Your task to perform on an android device: Do I have any events tomorrow? Image 0: 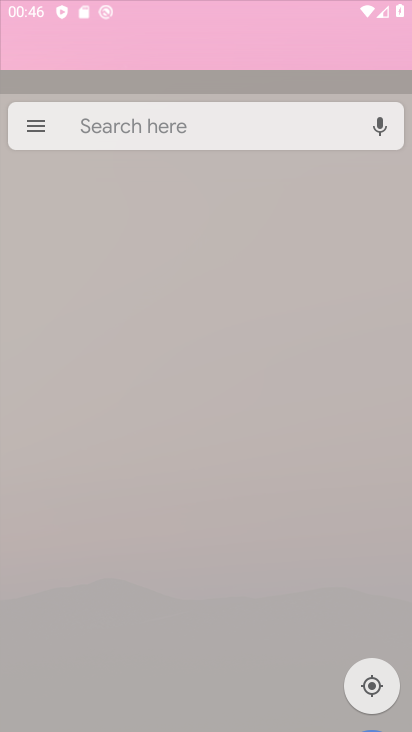
Step 0: click (266, 146)
Your task to perform on an android device: Do I have any events tomorrow? Image 1: 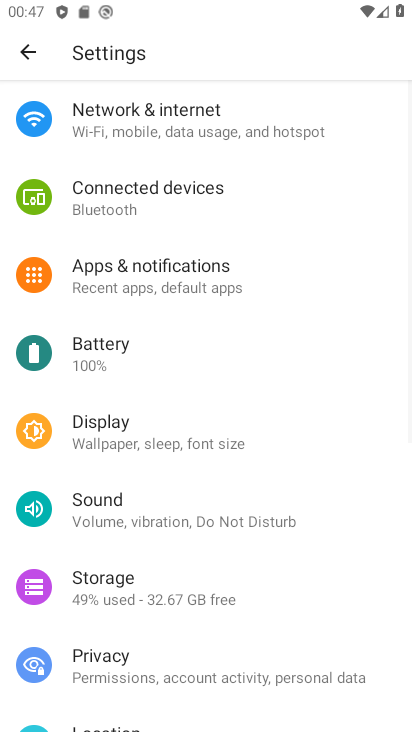
Step 1: press home button
Your task to perform on an android device: Do I have any events tomorrow? Image 2: 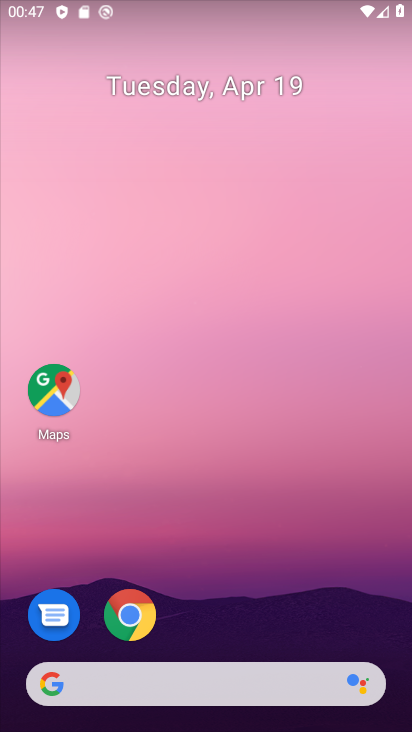
Step 2: drag from (260, 470) to (274, 161)
Your task to perform on an android device: Do I have any events tomorrow? Image 3: 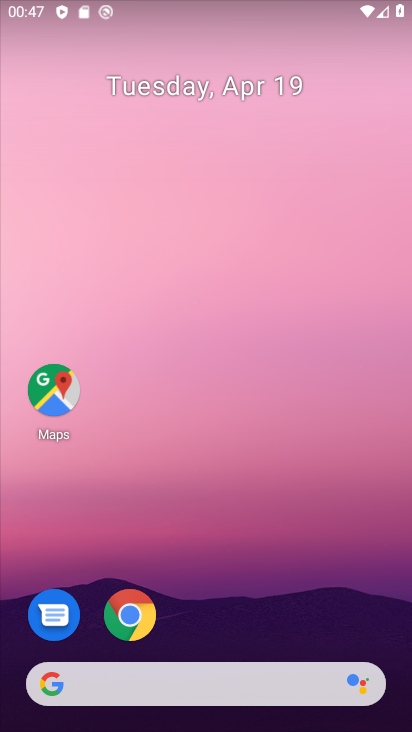
Step 3: drag from (261, 514) to (259, 116)
Your task to perform on an android device: Do I have any events tomorrow? Image 4: 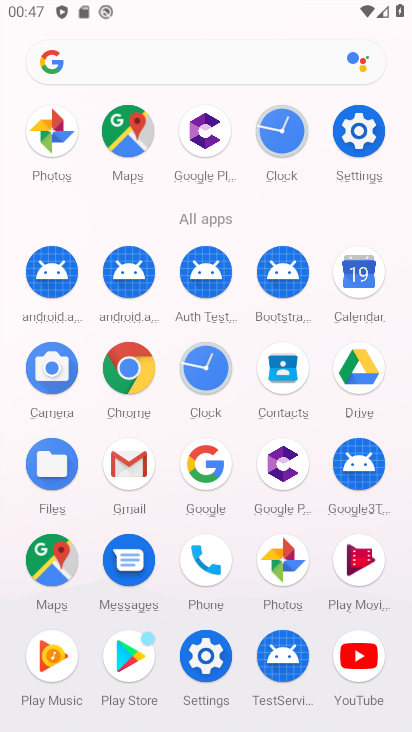
Step 4: click (373, 283)
Your task to perform on an android device: Do I have any events tomorrow? Image 5: 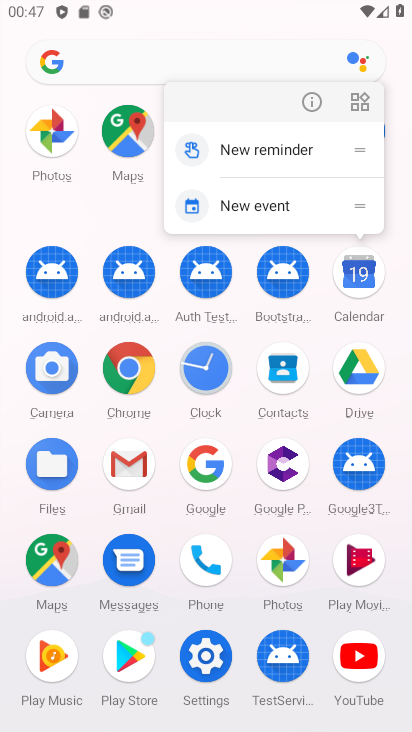
Step 5: click (370, 280)
Your task to perform on an android device: Do I have any events tomorrow? Image 6: 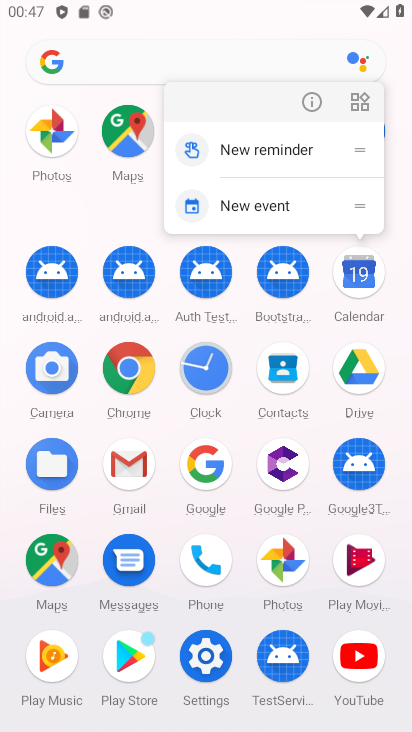
Step 6: click (369, 279)
Your task to perform on an android device: Do I have any events tomorrow? Image 7: 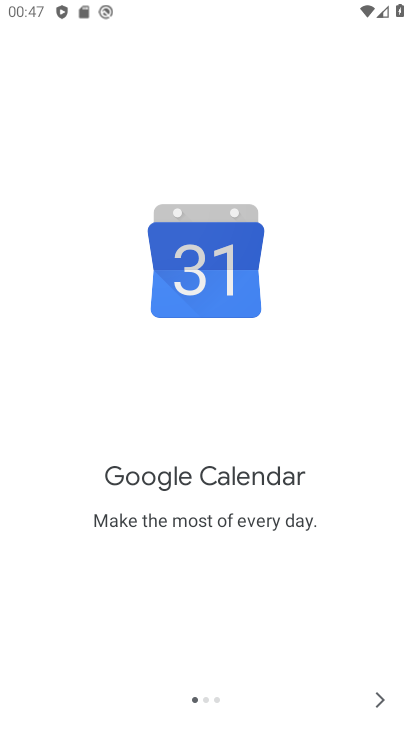
Step 7: click (375, 691)
Your task to perform on an android device: Do I have any events tomorrow? Image 8: 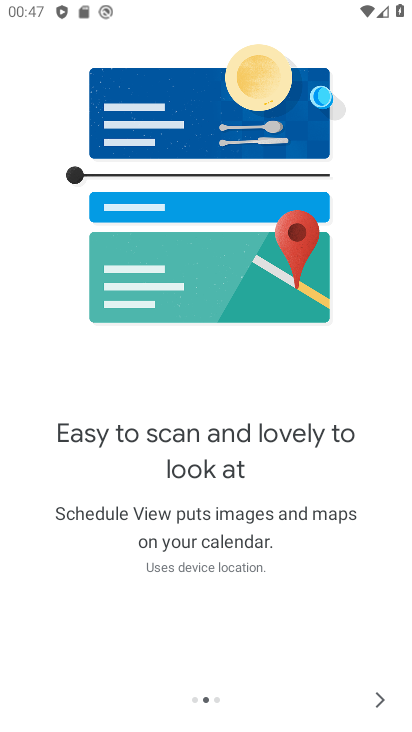
Step 8: click (375, 695)
Your task to perform on an android device: Do I have any events tomorrow? Image 9: 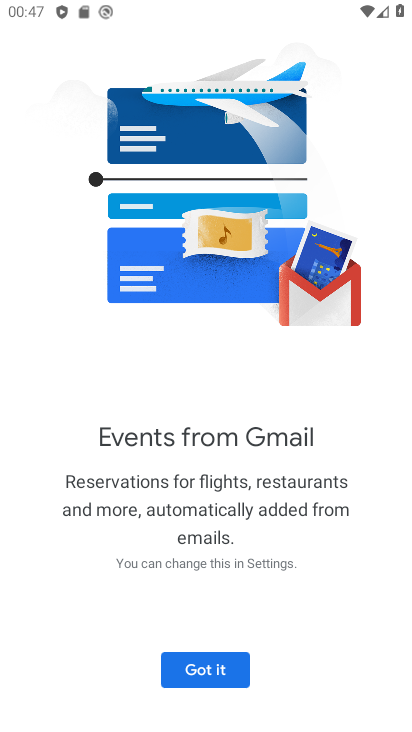
Step 9: click (379, 693)
Your task to perform on an android device: Do I have any events tomorrow? Image 10: 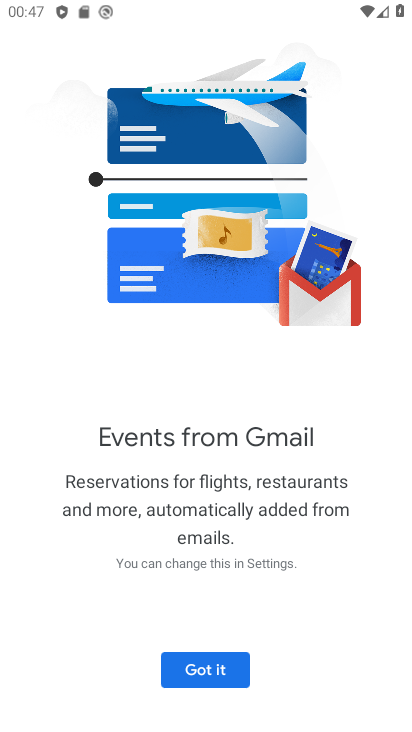
Step 10: click (213, 673)
Your task to perform on an android device: Do I have any events tomorrow? Image 11: 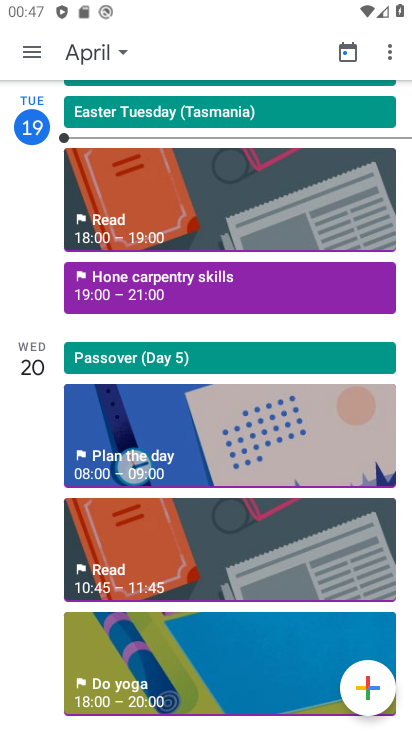
Step 11: click (97, 53)
Your task to perform on an android device: Do I have any events tomorrow? Image 12: 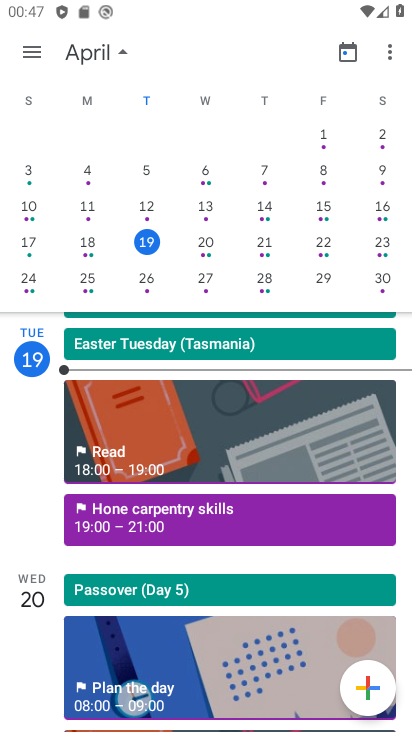
Step 12: click (202, 248)
Your task to perform on an android device: Do I have any events tomorrow? Image 13: 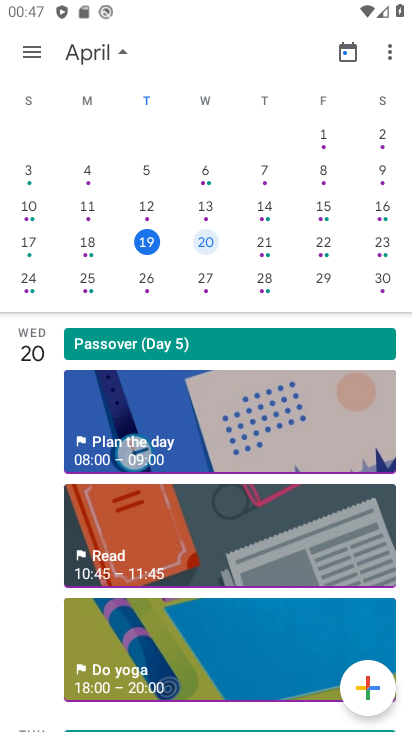
Step 13: task complete